Your task to perform on an android device: delete location history Image 0: 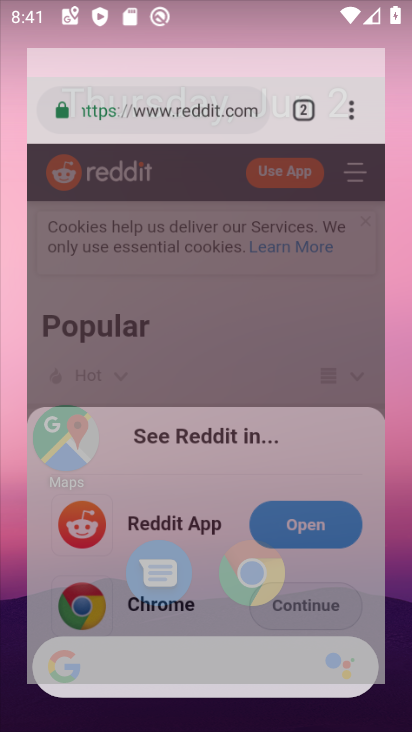
Step 0: press home button
Your task to perform on an android device: delete location history Image 1: 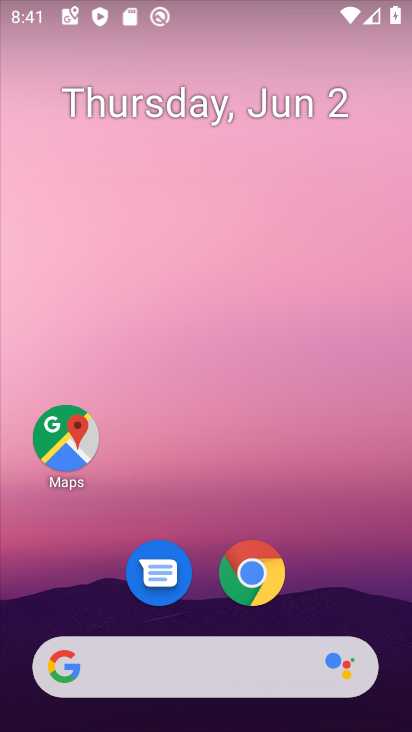
Step 1: click (53, 441)
Your task to perform on an android device: delete location history Image 2: 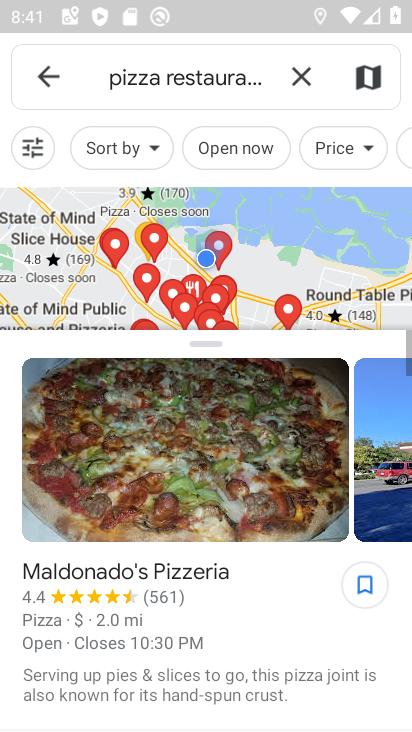
Step 2: click (44, 64)
Your task to perform on an android device: delete location history Image 3: 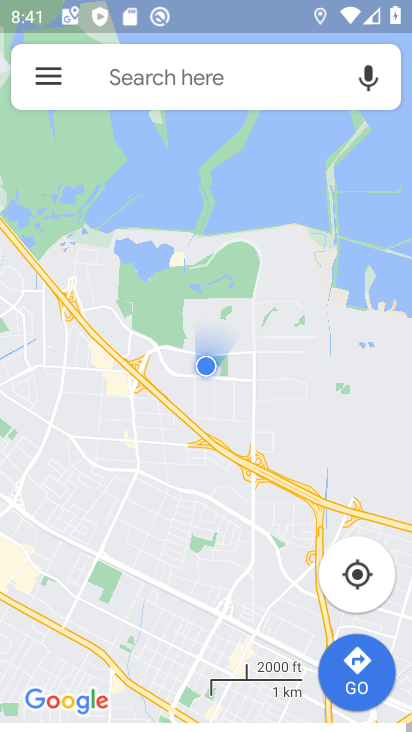
Step 3: click (44, 64)
Your task to perform on an android device: delete location history Image 4: 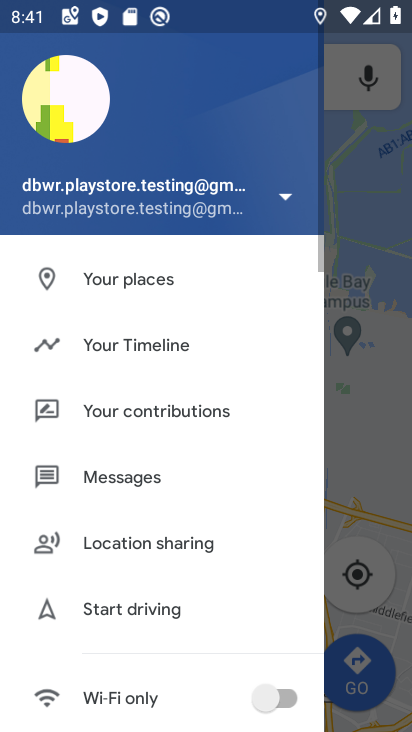
Step 4: click (85, 343)
Your task to perform on an android device: delete location history Image 5: 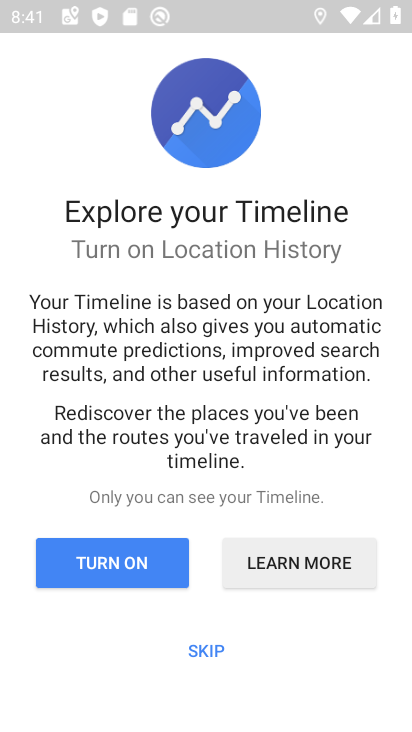
Step 5: click (208, 653)
Your task to perform on an android device: delete location history Image 6: 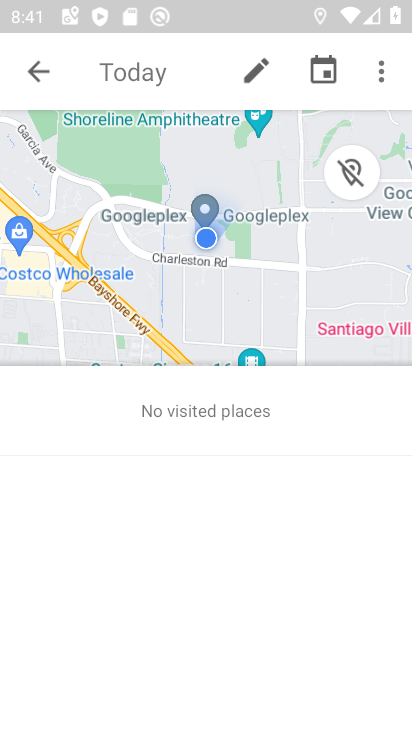
Step 6: click (373, 73)
Your task to perform on an android device: delete location history Image 7: 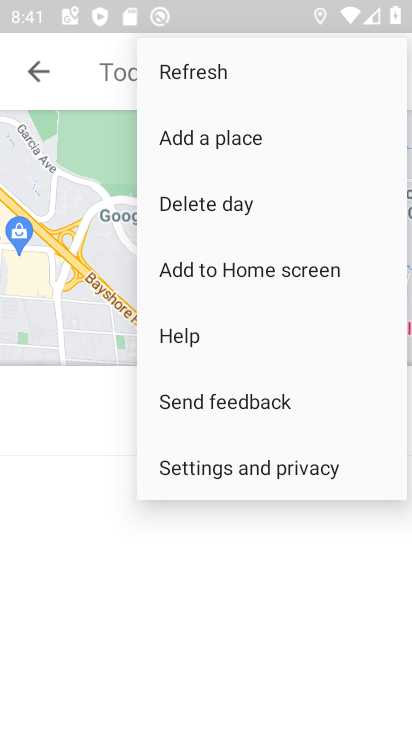
Step 7: click (181, 463)
Your task to perform on an android device: delete location history Image 8: 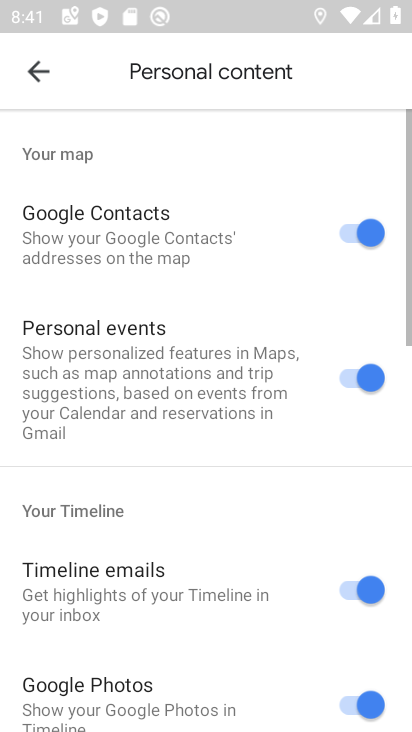
Step 8: drag from (187, 604) to (287, 140)
Your task to perform on an android device: delete location history Image 9: 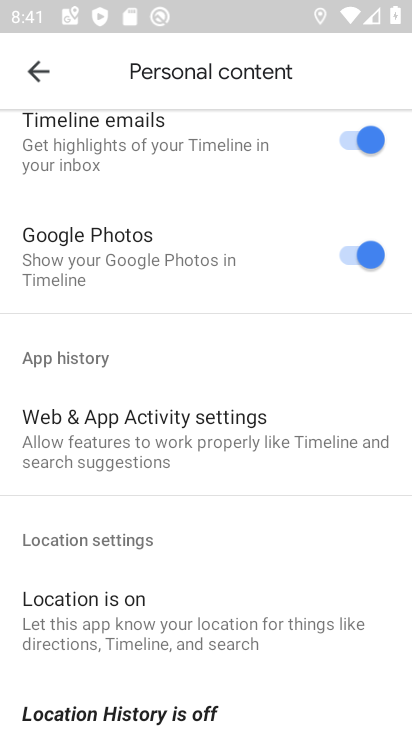
Step 9: drag from (236, 533) to (311, 272)
Your task to perform on an android device: delete location history Image 10: 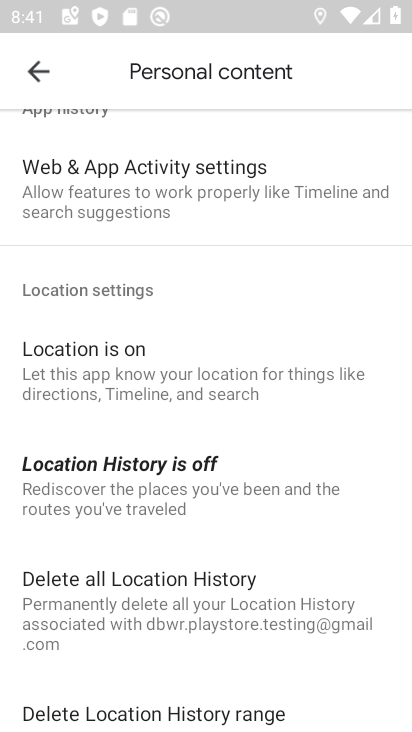
Step 10: click (165, 611)
Your task to perform on an android device: delete location history Image 11: 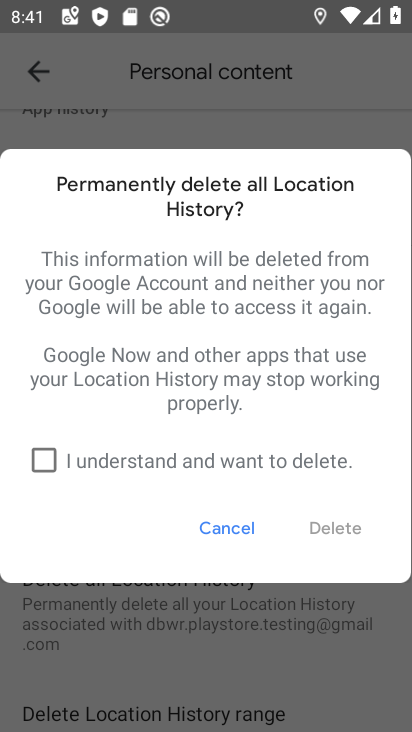
Step 11: click (236, 465)
Your task to perform on an android device: delete location history Image 12: 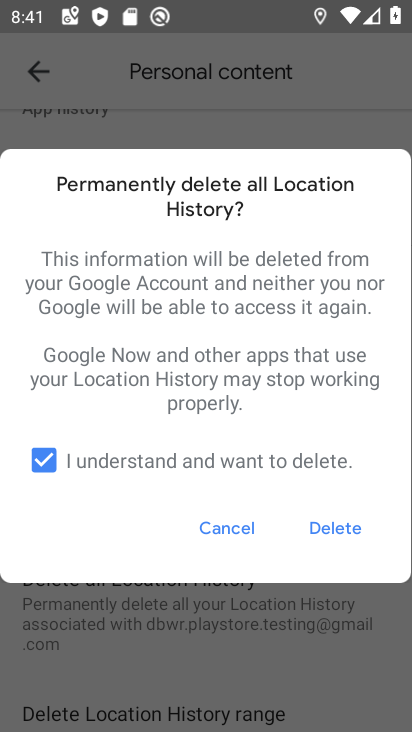
Step 12: click (336, 524)
Your task to perform on an android device: delete location history Image 13: 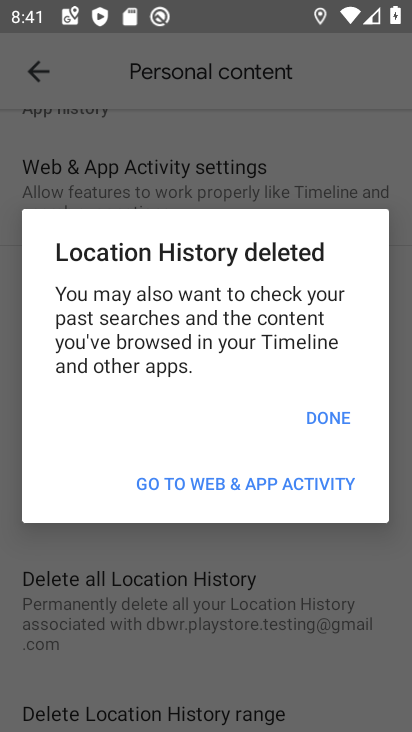
Step 13: click (321, 425)
Your task to perform on an android device: delete location history Image 14: 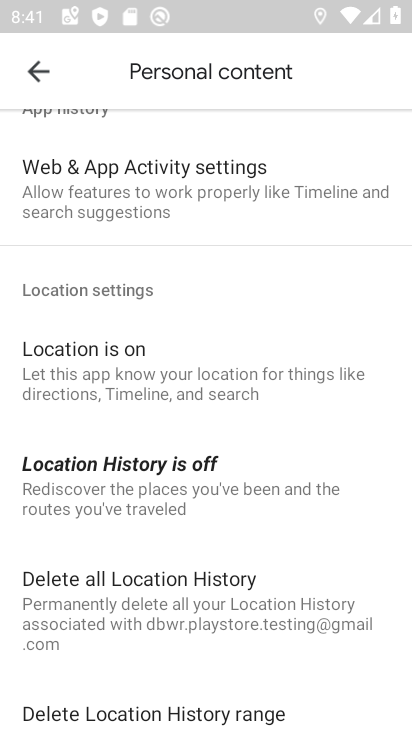
Step 14: task complete